Your task to perform on an android device: When is my next appointment? Image 0: 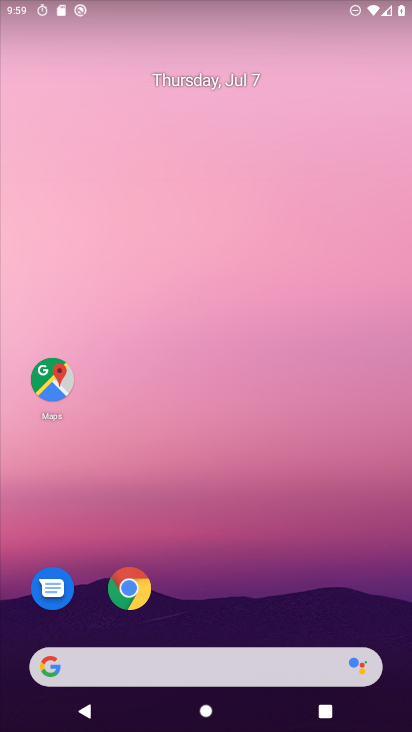
Step 0: click (245, 80)
Your task to perform on an android device: When is my next appointment? Image 1: 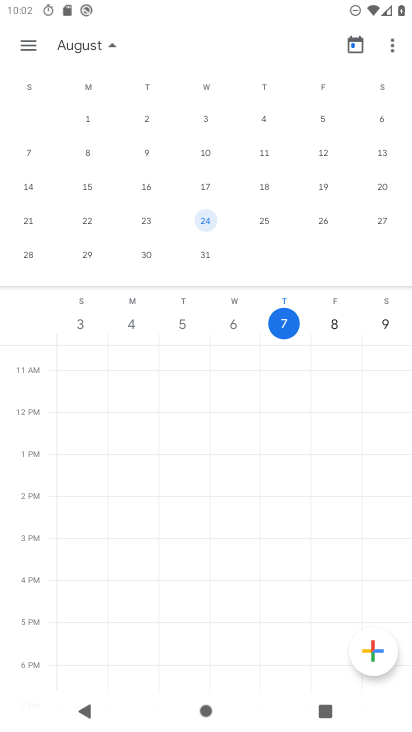
Step 1: task complete